Your task to perform on an android device: Open the calendar app, open the side menu, and click the "Day" option Image 0: 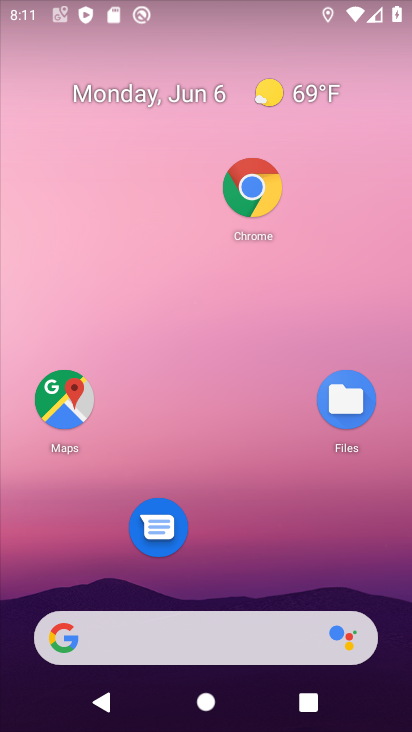
Step 0: drag from (263, 569) to (237, 73)
Your task to perform on an android device: Open the calendar app, open the side menu, and click the "Day" option Image 1: 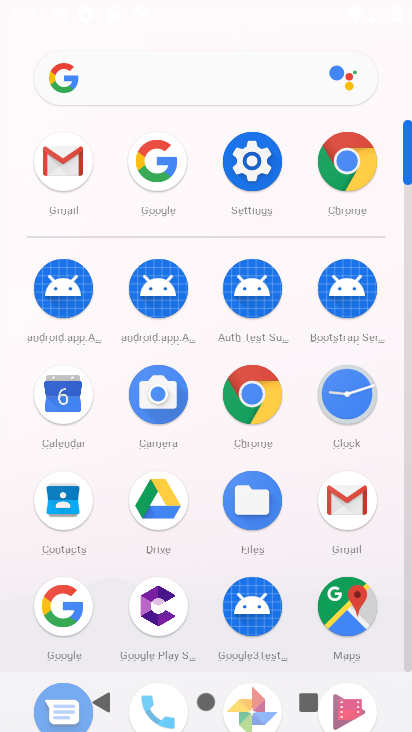
Step 1: click (57, 387)
Your task to perform on an android device: Open the calendar app, open the side menu, and click the "Day" option Image 2: 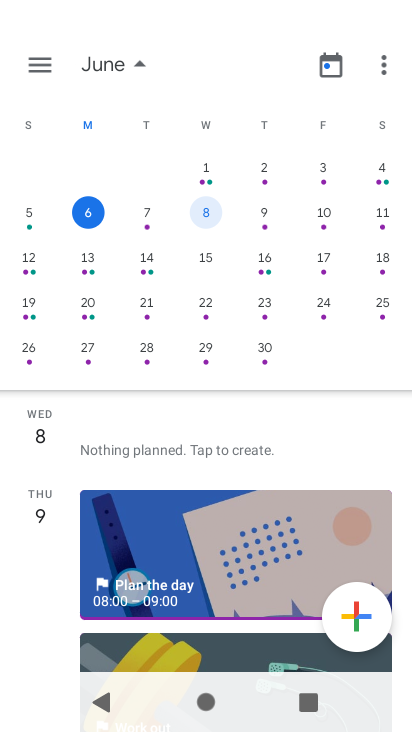
Step 2: click (96, 207)
Your task to perform on an android device: Open the calendar app, open the side menu, and click the "Day" option Image 3: 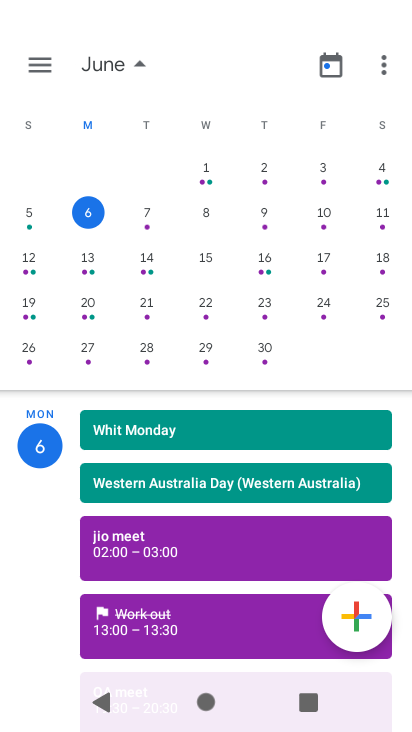
Step 3: click (41, 63)
Your task to perform on an android device: Open the calendar app, open the side menu, and click the "Day" option Image 4: 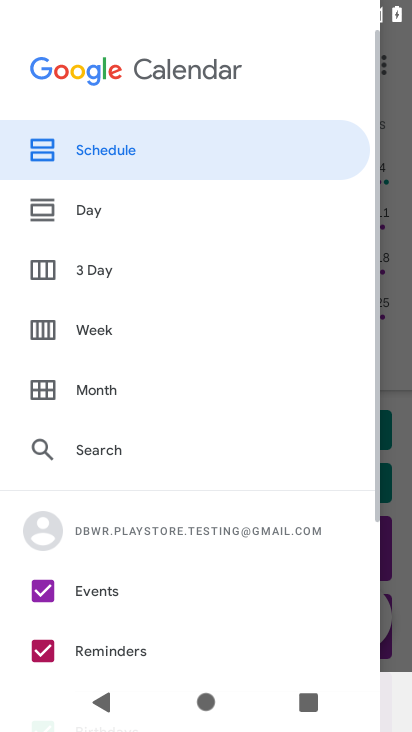
Step 4: click (106, 198)
Your task to perform on an android device: Open the calendar app, open the side menu, and click the "Day" option Image 5: 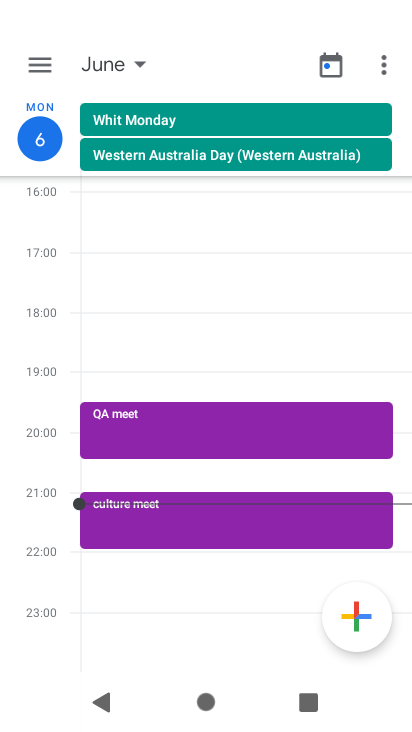
Step 5: task complete